Your task to perform on an android device: toggle location history Image 0: 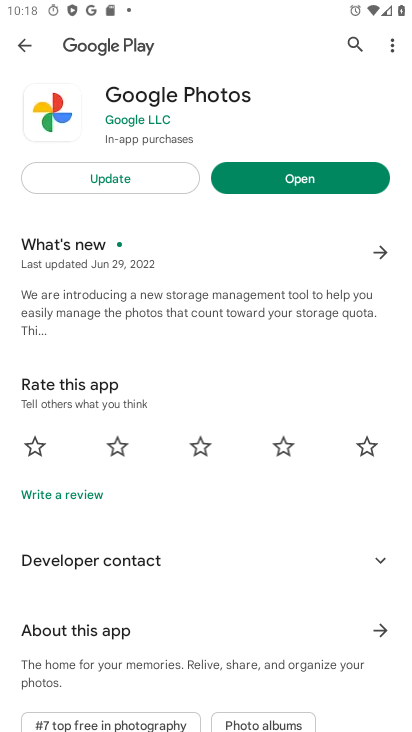
Step 0: press home button
Your task to perform on an android device: toggle location history Image 1: 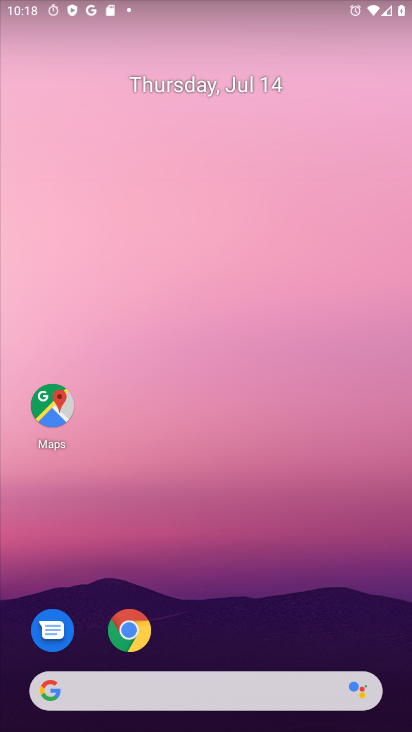
Step 1: drag from (12, 709) to (225, 175)
Your task to perform on an android device: toggle location history Image 2: 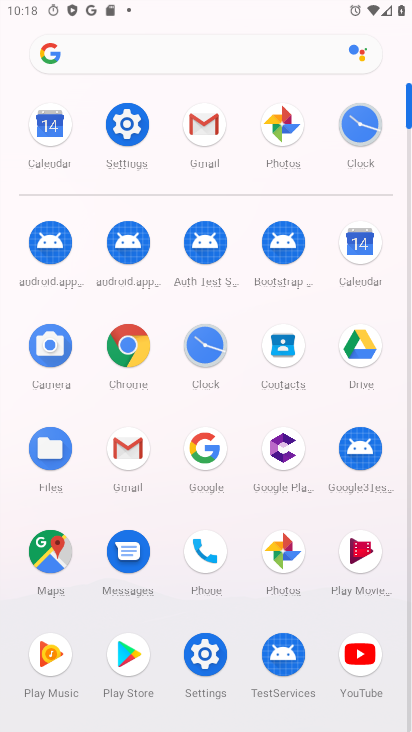
Step 2: click (204, 670)
Your task to perform on an android device: toggle location history Image 3: 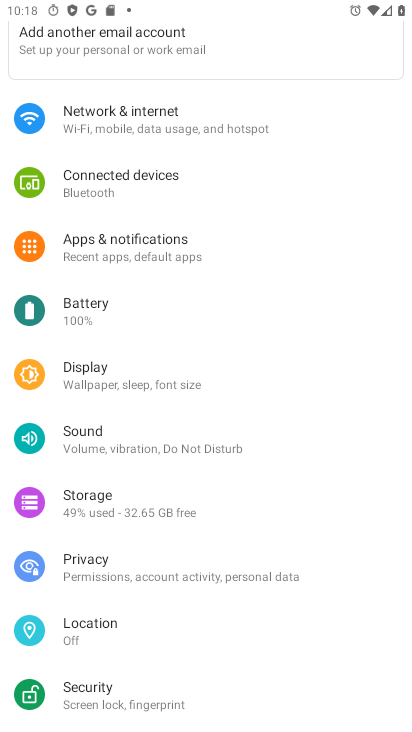
Step 3: click (108, 611)
Your task to perform on an android device: toggle location history Image 4: 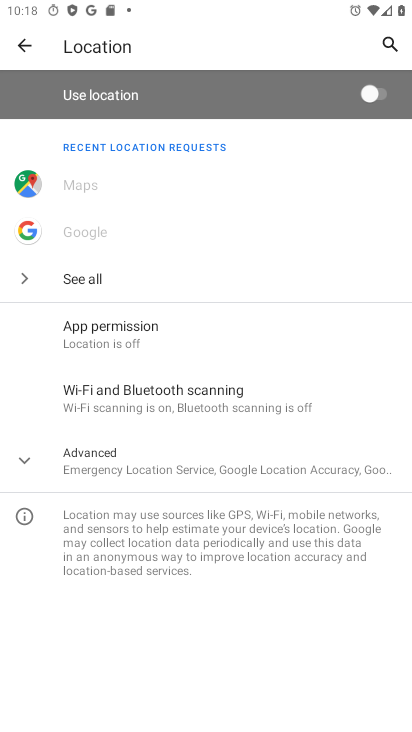
Step 4: click (373, 99)
Your task to perform on an android device: toggle location history Image 5: 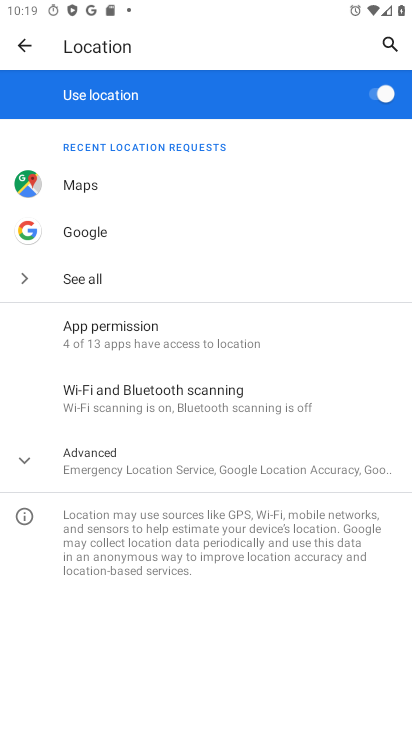
Step 5: task complete